Your task to perform on an android device: turn off notifications in google photos Image 0: 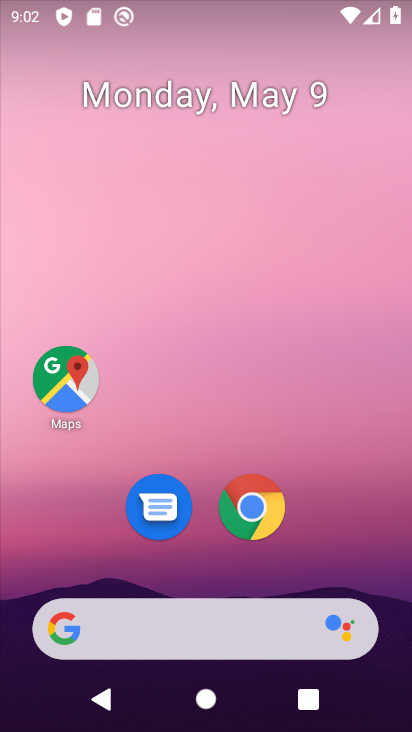
Step 0: drag from (96, 586) to (222, 90)
Your task to perform on an android device: turn off notifications in google photos Image 1: 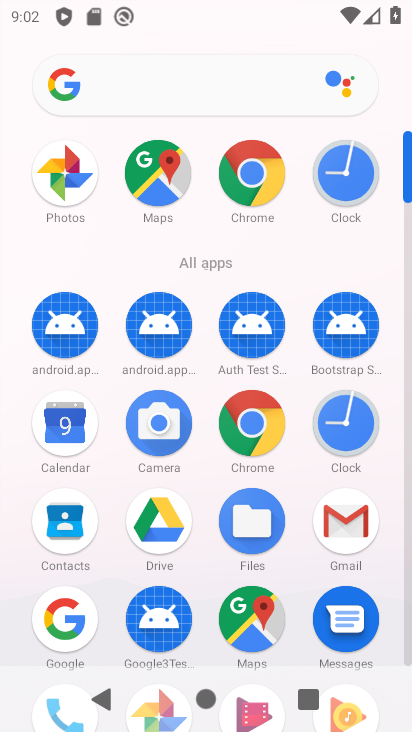
Step 1: drag from (229, 614) to (296, 280)
Your task to perform on an android device: turn off notifications in google photos Image 2: 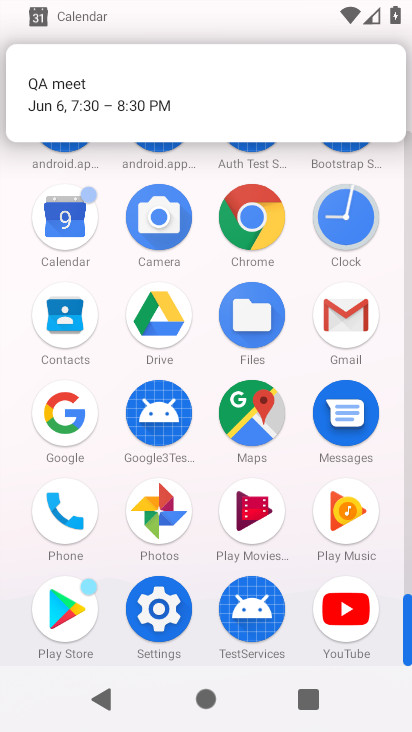
Step 2: click (154, 504)
Your task to perform on an android device: turn off notifications in google photos Image 3: 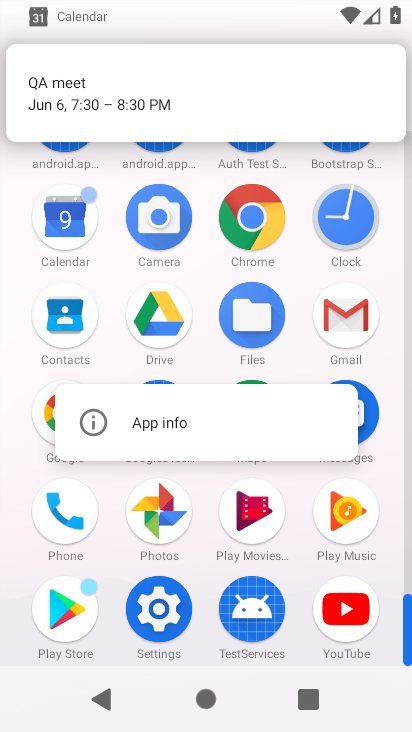
Step 3: click (163, 498)
Your task to perform on an android device: turn off notifications in google photos Image 4: 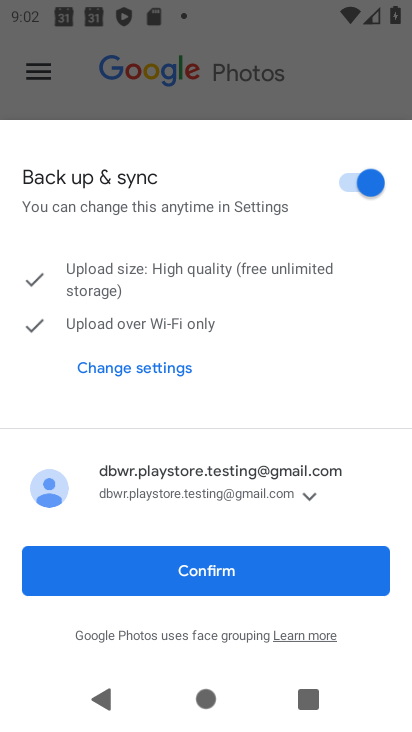
Step 4: click (232, 570)
Your task to perform on an android device: turn off notifications in google photos Image 5: 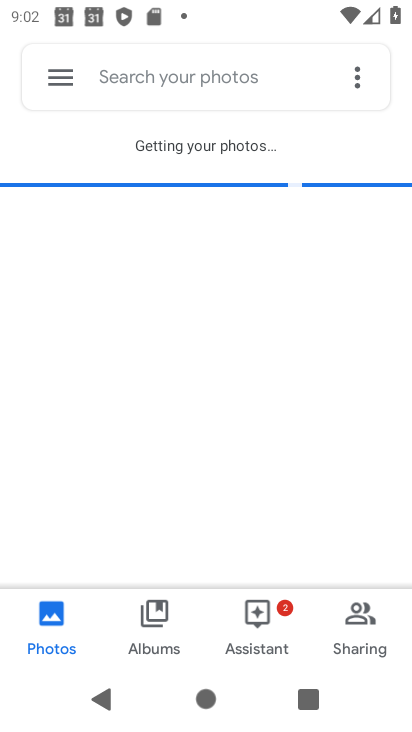
Step 5: click (56, 70)
Your task to perform on an android device: turn off notifications in google photos Image 6: 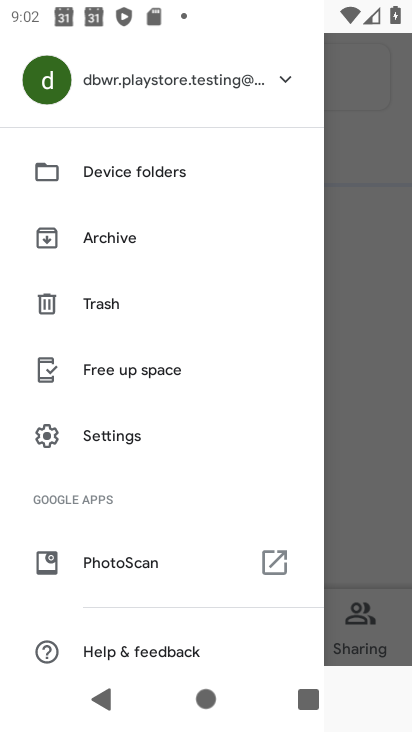
Step 6: drag from (145, 611) to (210, 235)
Your task to perform on an android device: turn off notifications in google photos Image 7: 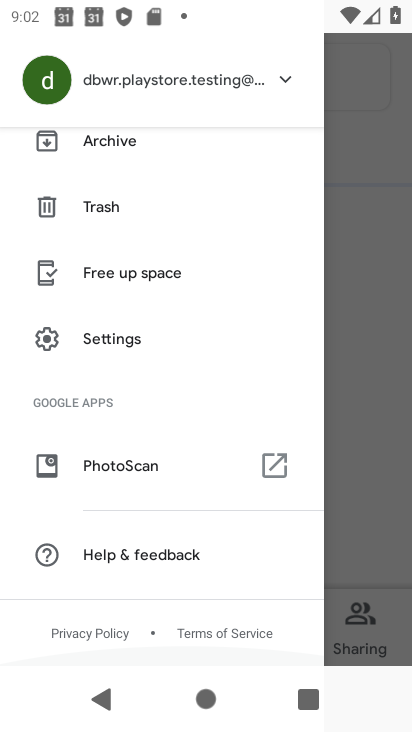
Step 7: click (174, 343)
Your task to perform on an android device: turn off notifications in google photos Image 8: 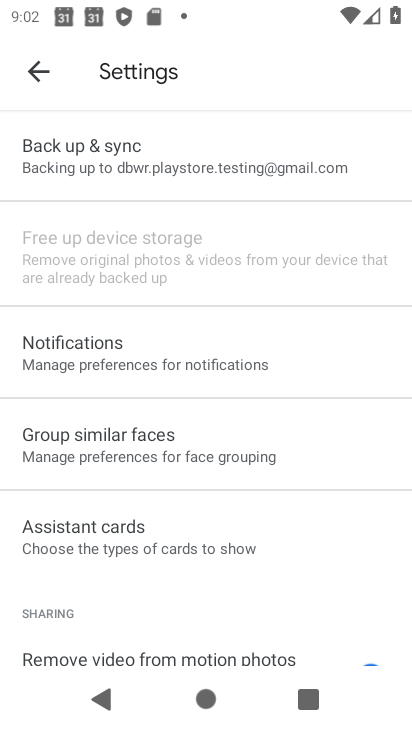
Step 8: drag from (152, 586) to (245, 618)
Your task to perform on an android device: turn off notifications in google photos Image 9: 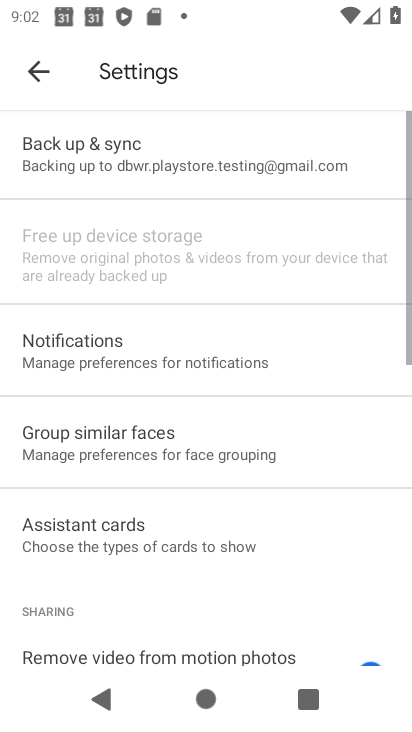
Step 9: click (225, 356)
Your task to perform on an android device: turn off notifications in google photos Image 10: 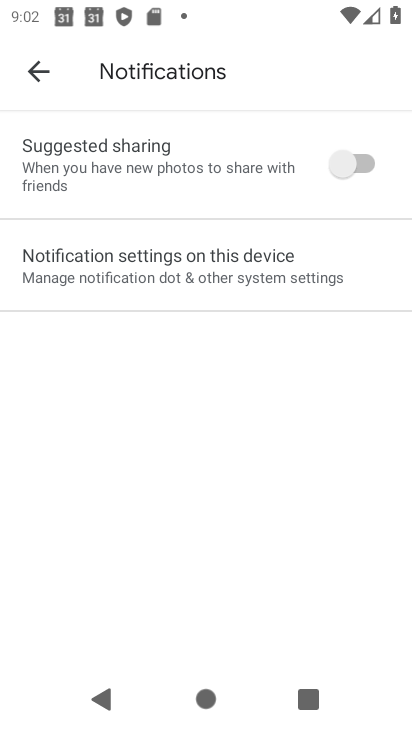
Step 10: click (238, 260)
Your task to perform on an android device: turn off notifications in google photos Image 11: 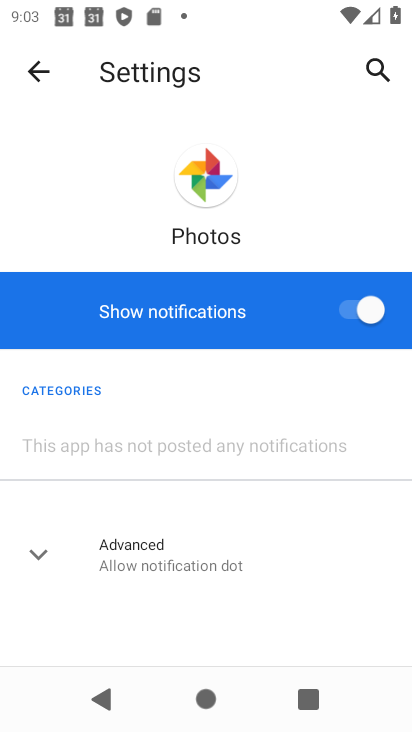
Step 11: click (342, 306)
Your task to perform on an android device: turn off notifications in google photos Image 12: 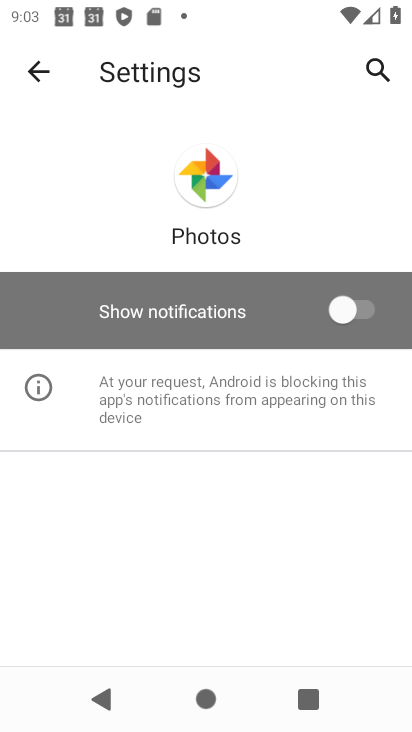
Step 12: task complete